Your task to perform on an android device: Open maps Image 0: 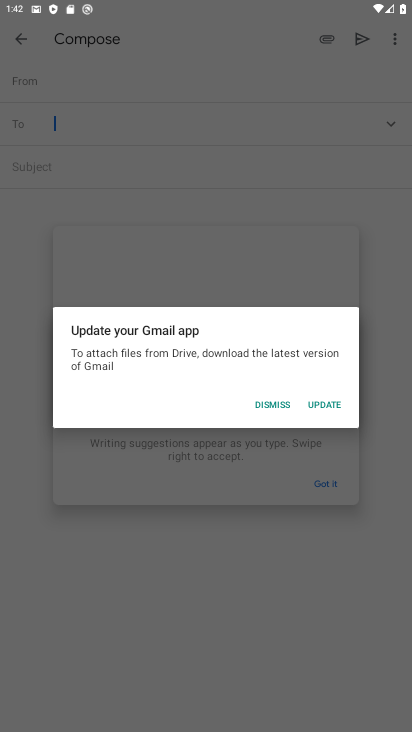
Step 0: press home button
Your task to perform on an android device: Open maps Image 1: 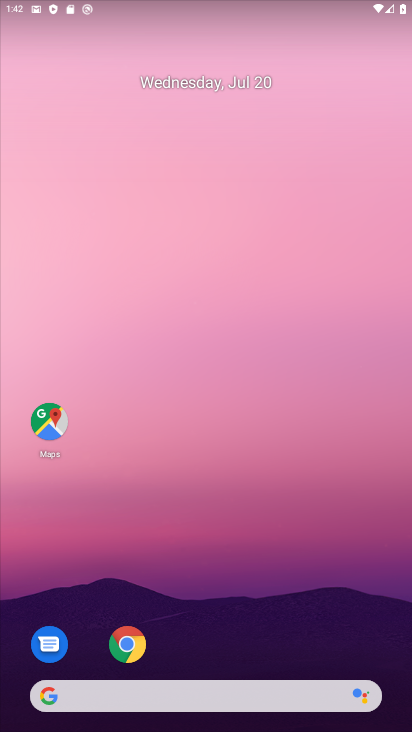
Step 1: click (42, 429)
Your task to perform on an android device: Open maps Image 2: 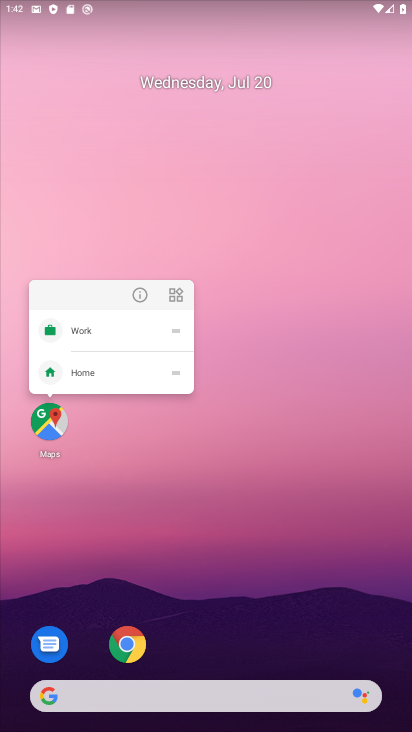
Step 2: click (42, 429)
Your task to perform on an android device: Open maps Image 3: 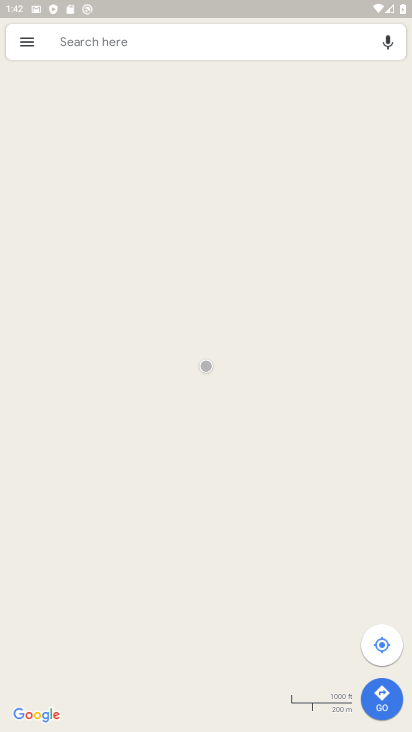
Step 3: click (15, 39)
Your task to perform on an android device: Open maps Image 4: 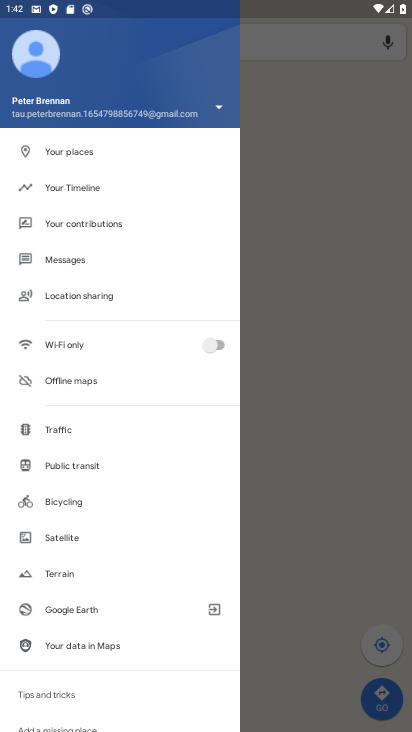
Step 4: click (333, 114)
Your task to perform on an android device: Open maps Image 5: 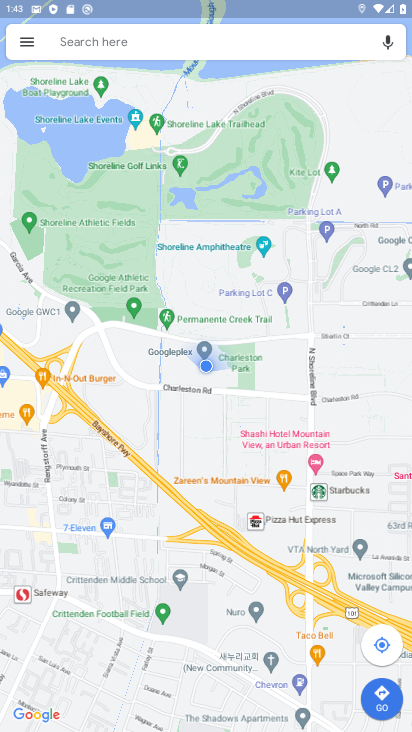
Step 5: task complete